Your task to perform on an android device: turn on showing notifications on the lock screen Image 0: 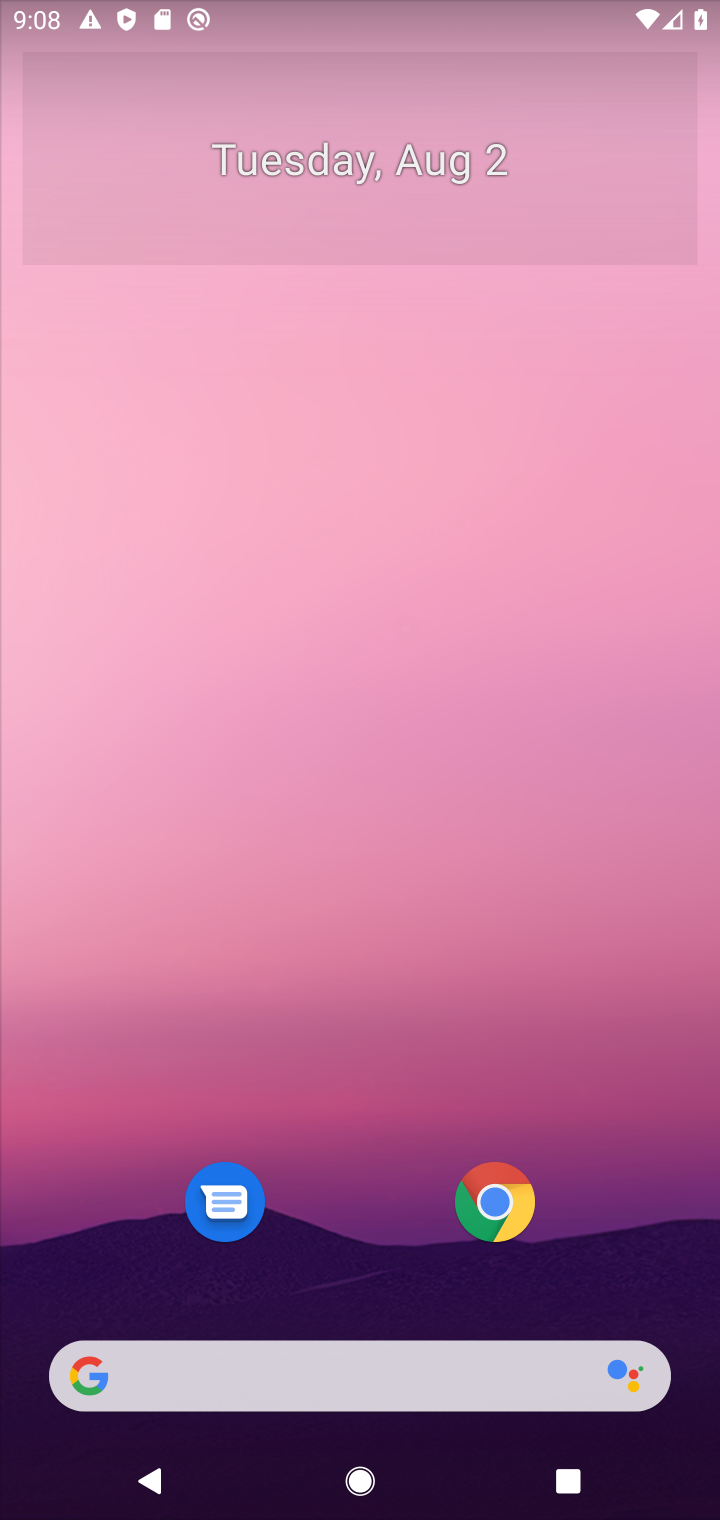
Step 0: drag from (664, 1229) to (535, 2)
Your task to perform on an android device: turn on showing notifications on the lock screen Image 1: 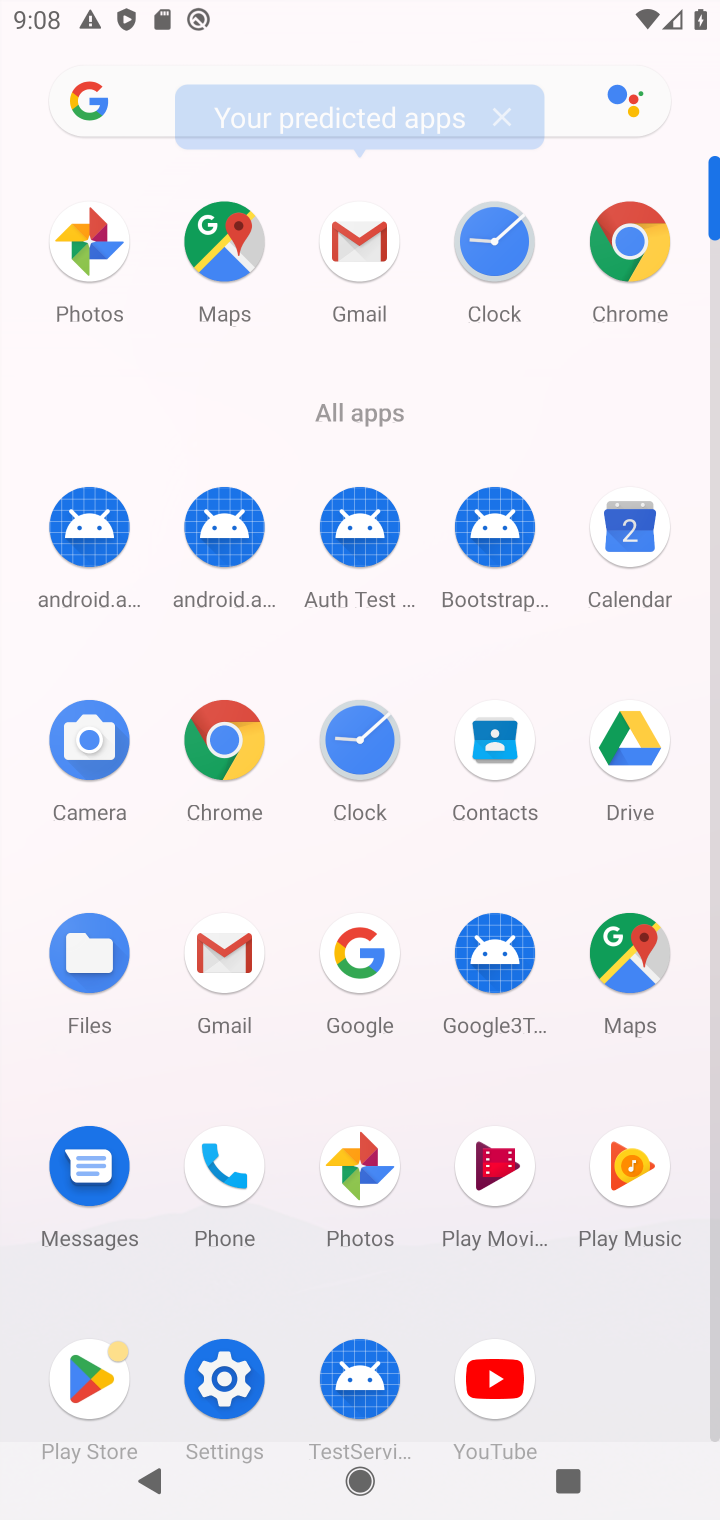
Step 1: click (217, 1444)
Your task to perform on an android device: turn on showing notifications on the lock screen Image 2: 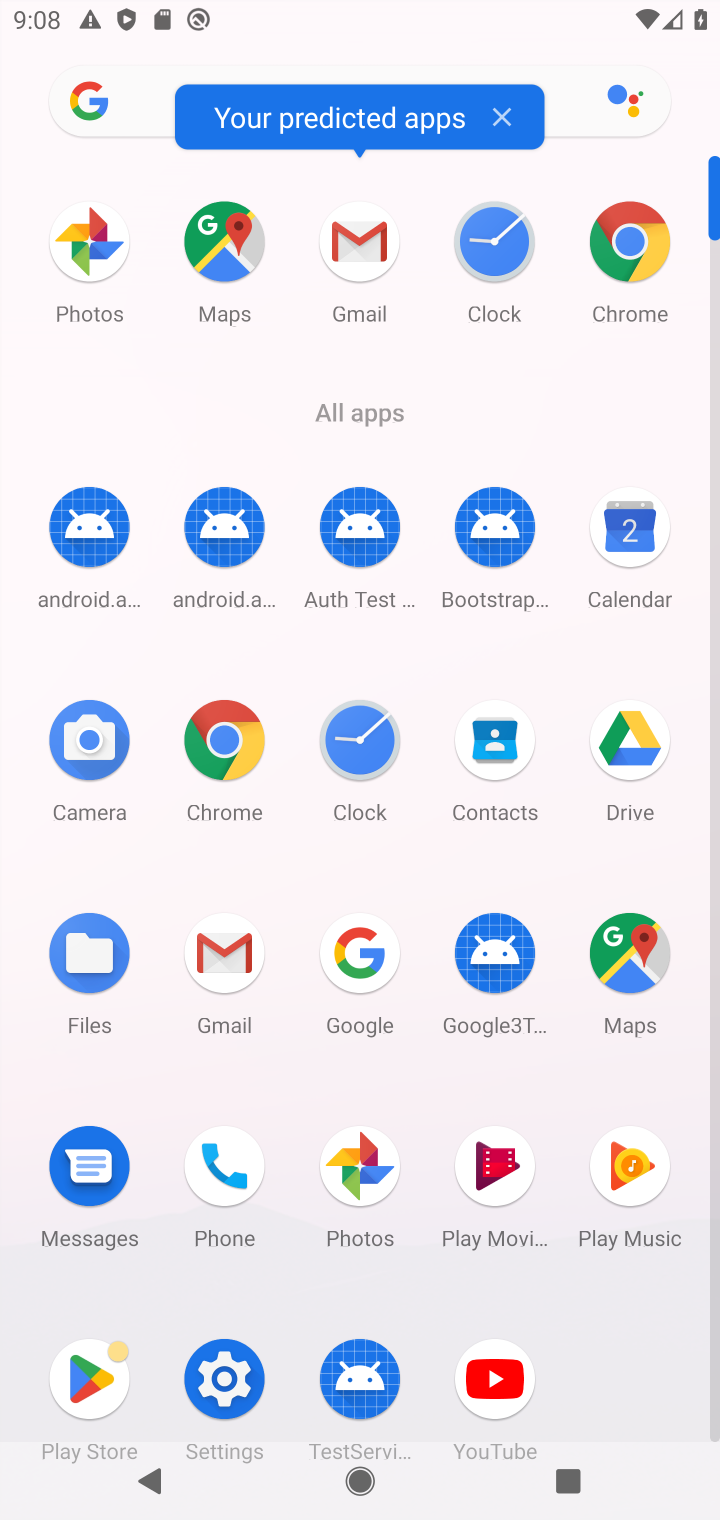
Step 2: click (222, 1383)
Your task to perform on an android device: turn on showing notifications on the lock screen Image 3: 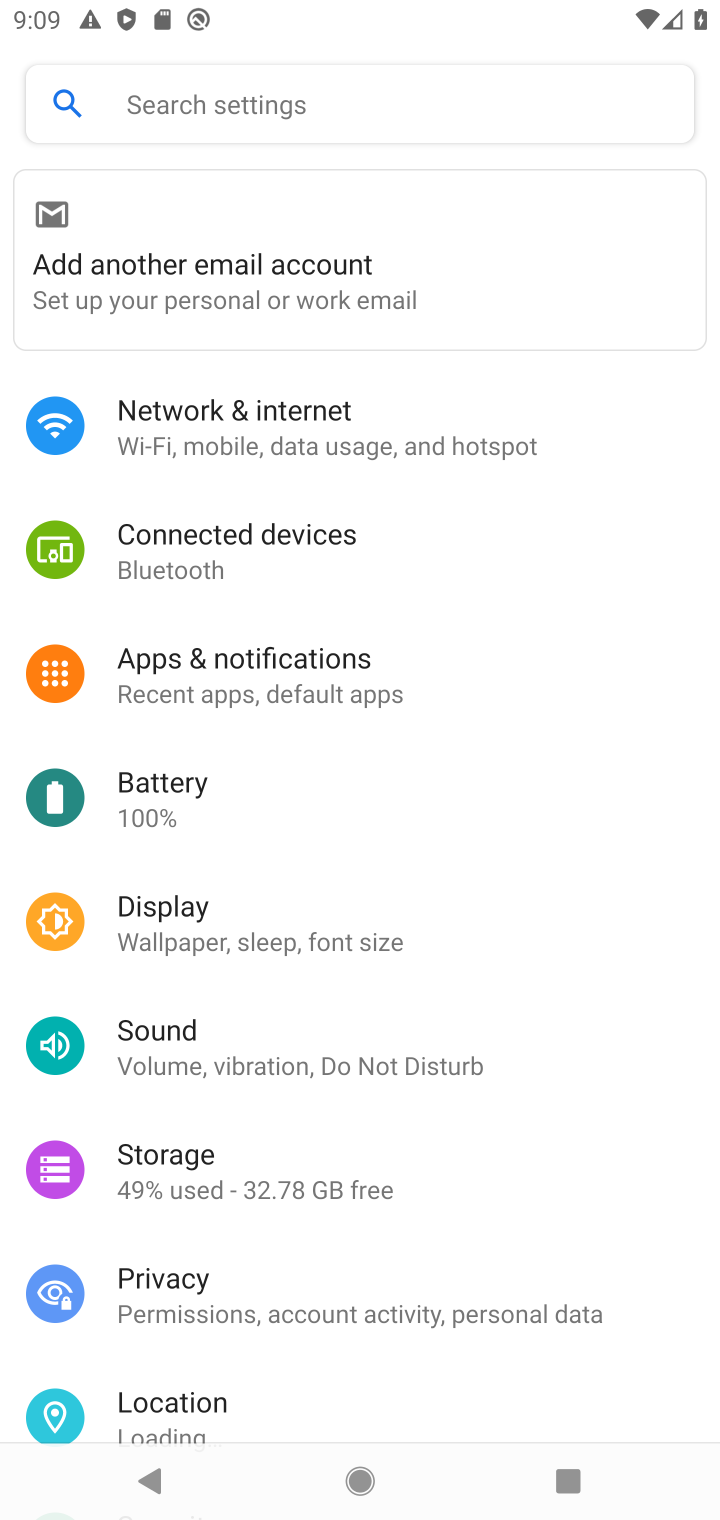
Step 3: click (461, 670)
Your task to perform on an android device: turn on showing notifications on the lock screen Image 4: 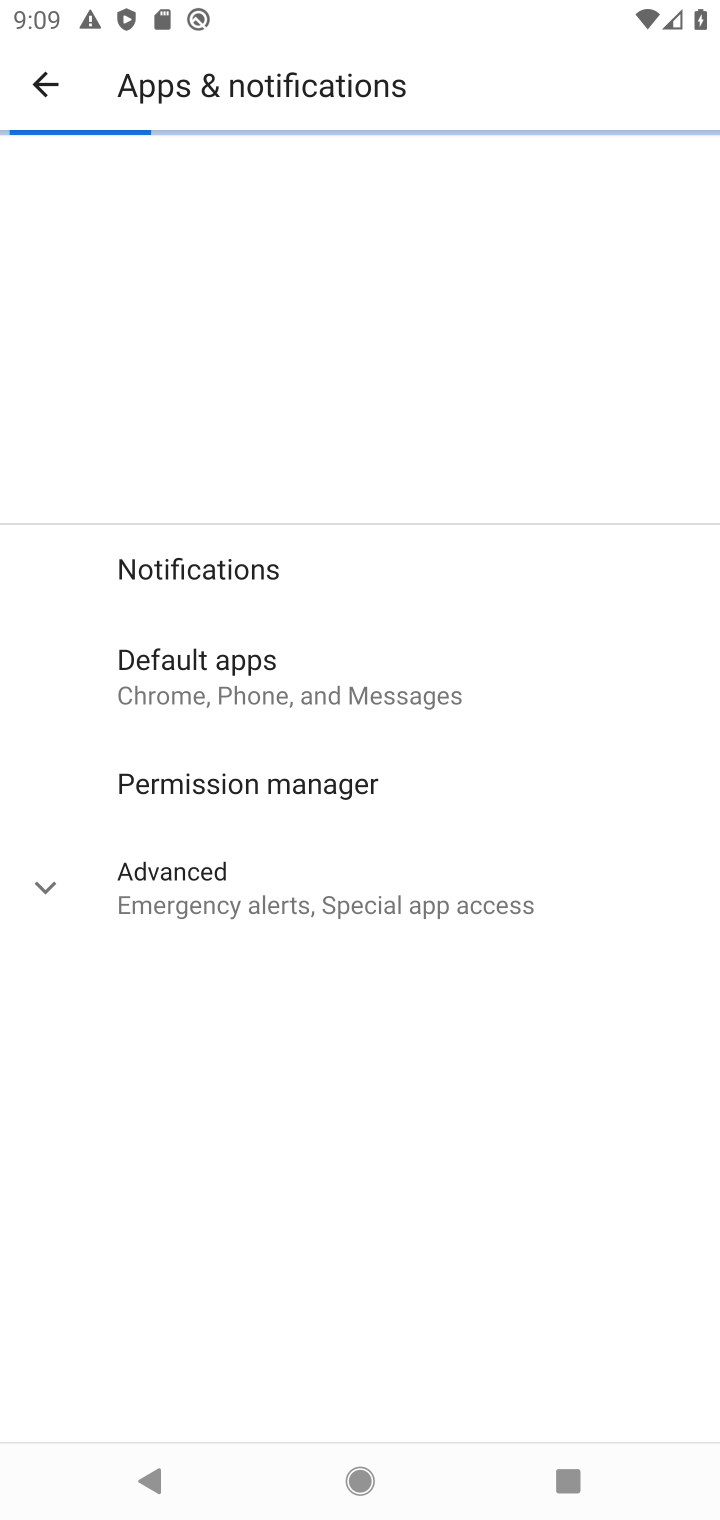
Step 4: click (400, 889)
Your task to perform on an android device: turn on showing notifications on the lock screen Image 5: 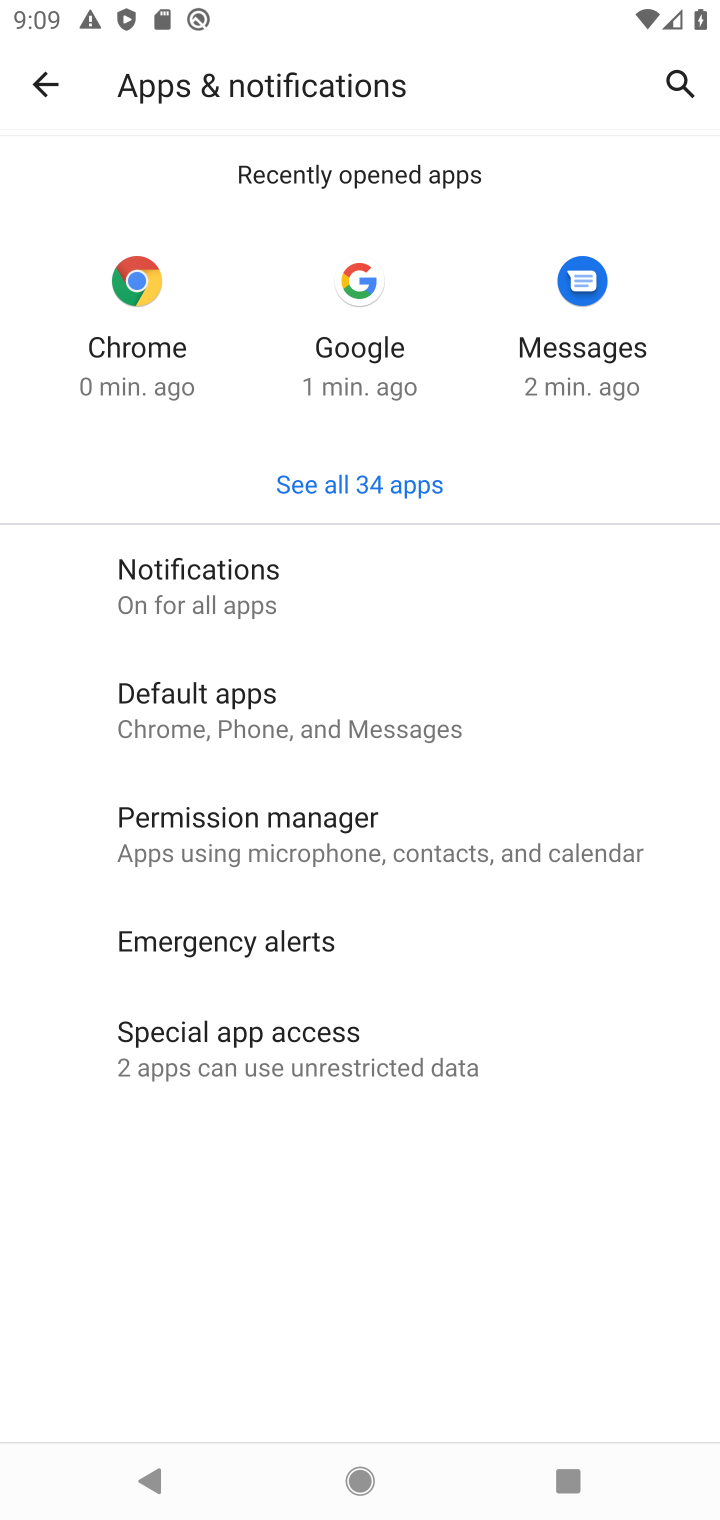
Step 5: click (380, 576)
Your task to perform on an android device: turn on showing notifications on the lock screen Image 6: 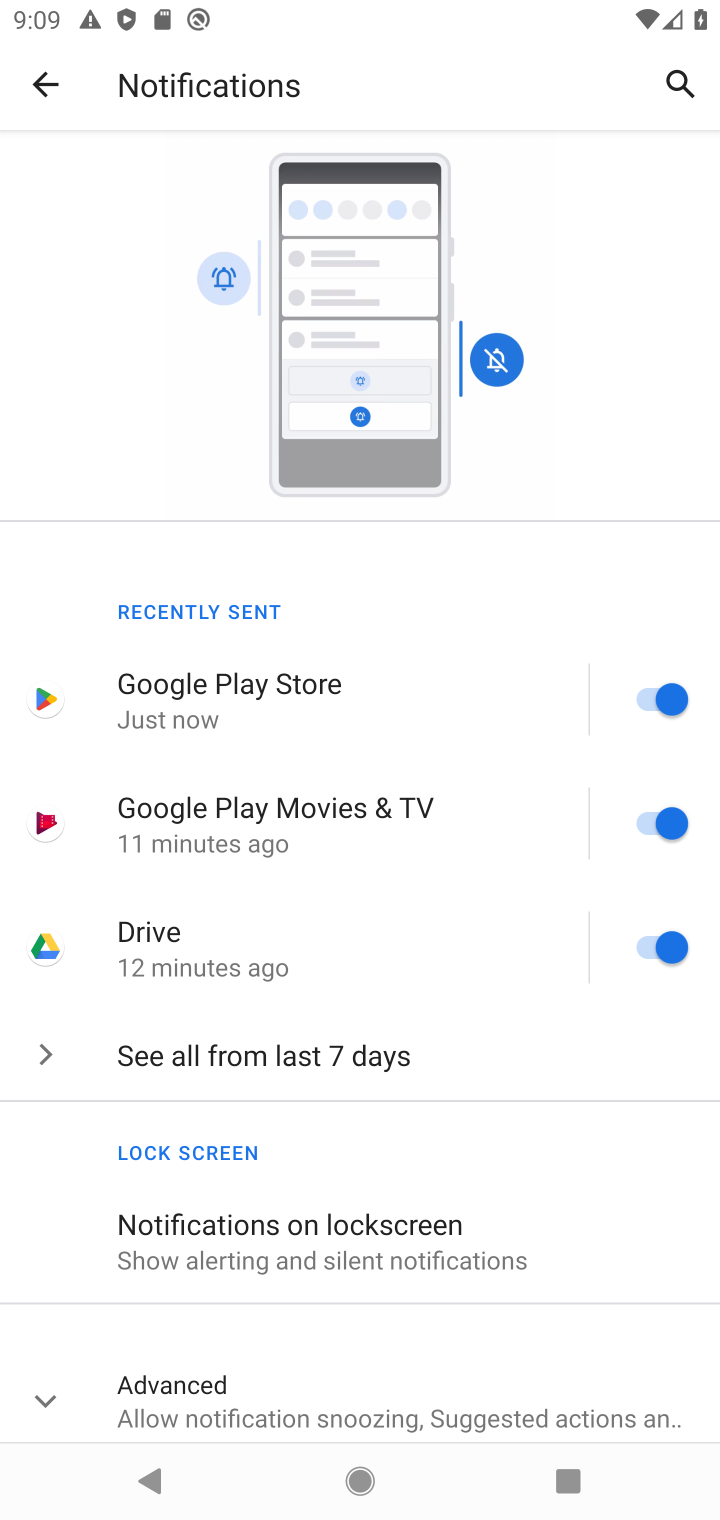
Step 6: click (413, 1195)
Your task to perform on an android device: turn on showing notifications on the lock screen Image 7: 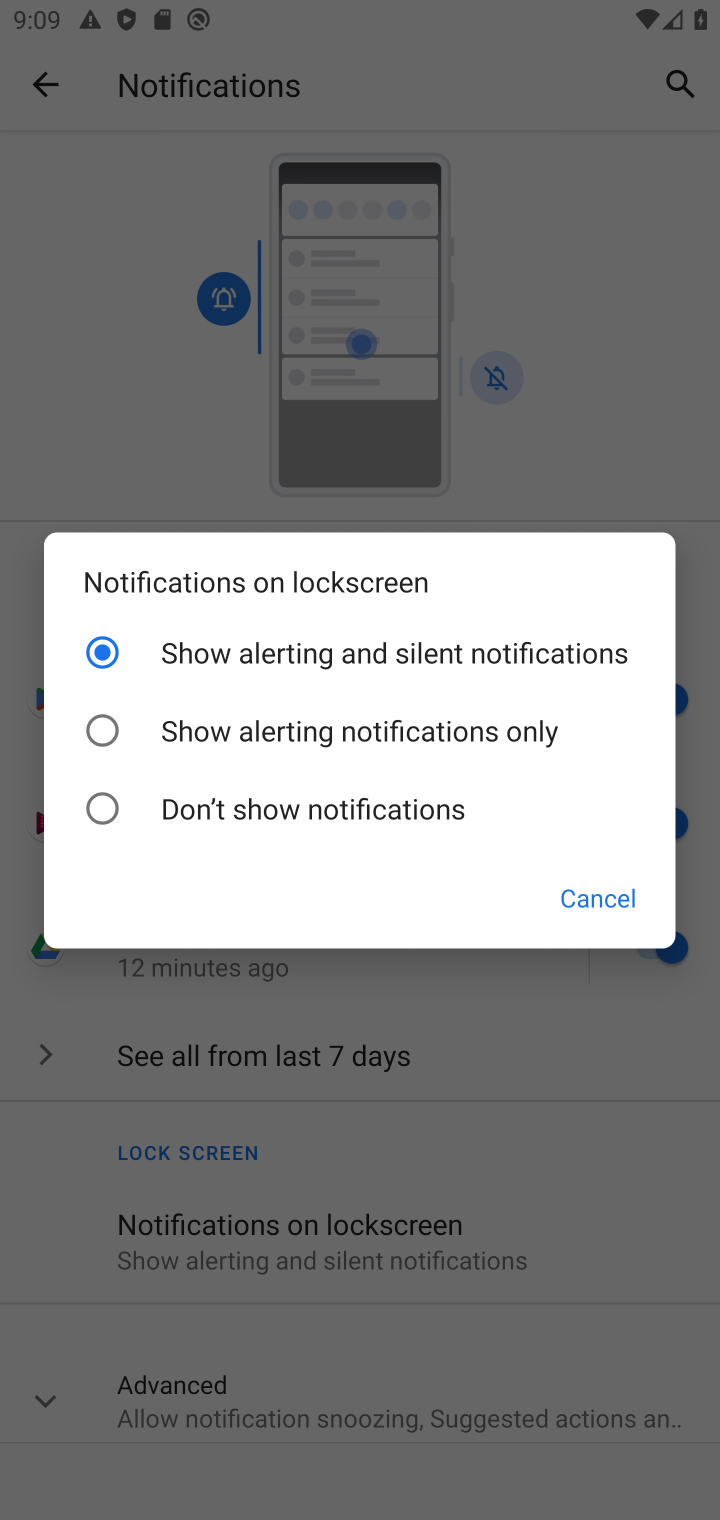
Step 7: click (449, 760)
Your task to perform on an android device: turn on showing notifications on the lock screen Image 8: 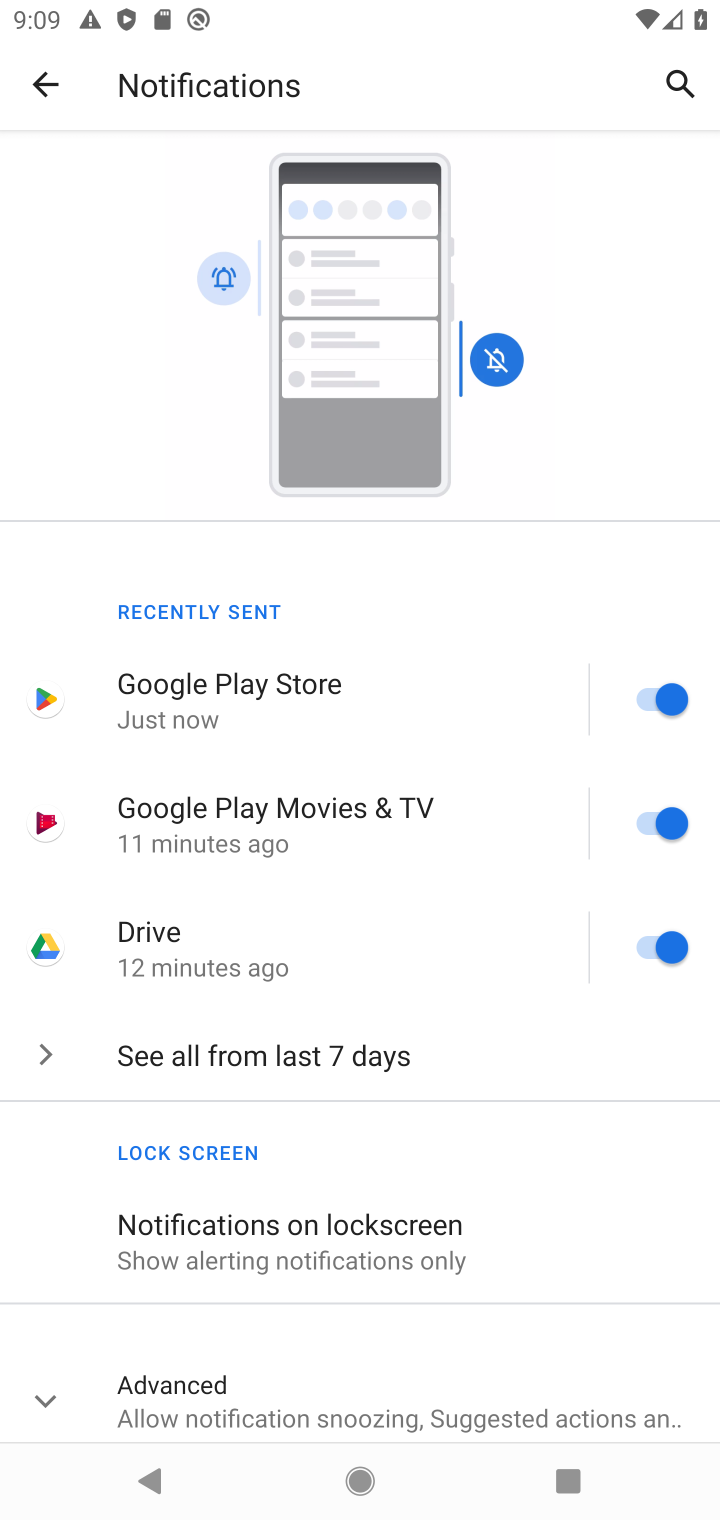
Step 8: task complete